Your task to perform on an android device: turn on location history Image 0: 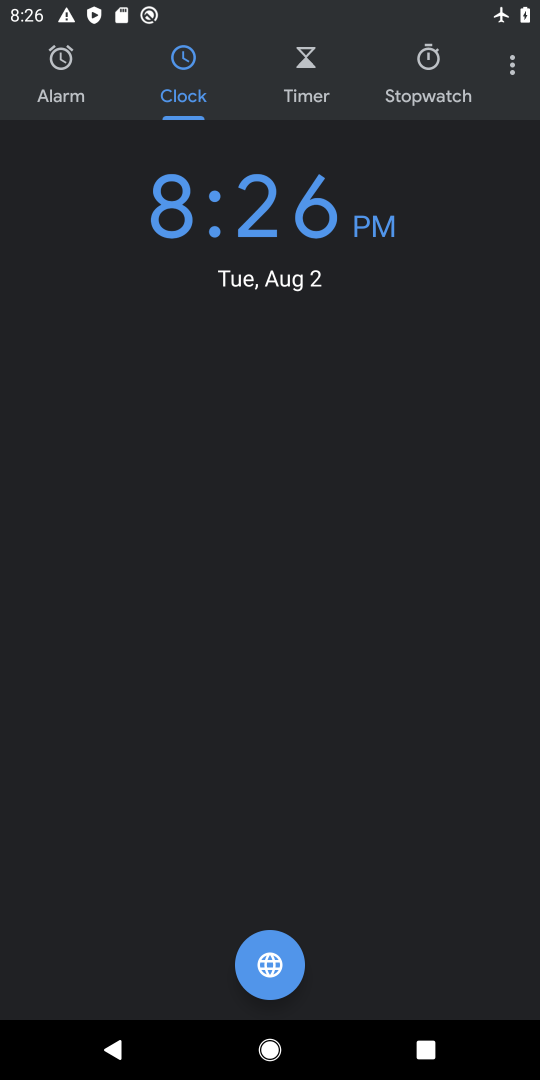
Step 0: press home button
Your task to perform on an android device: turn on location history Image 1: 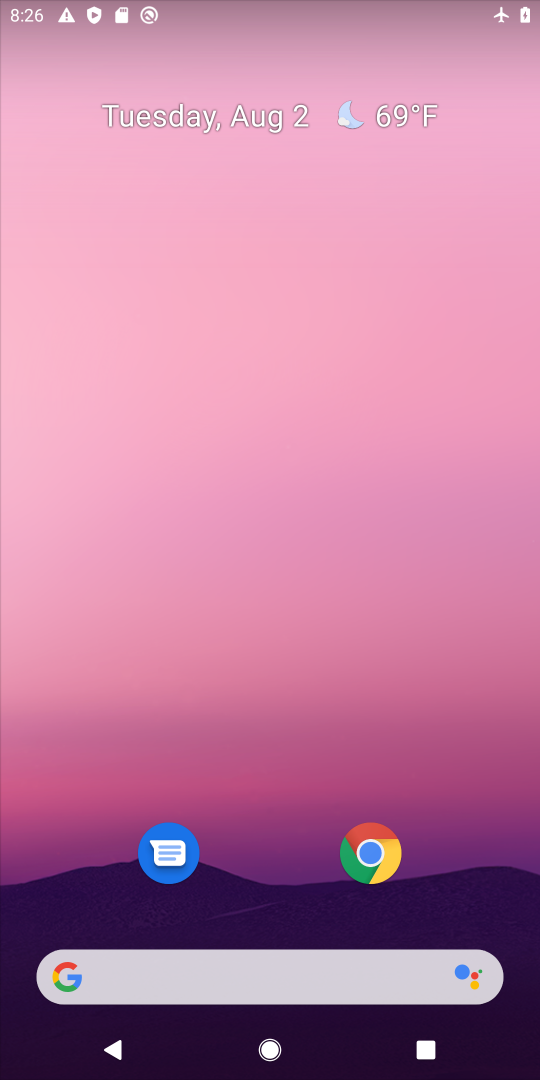
Step 1: drag from (233, 879) to (106, 171)
Your task to perform on an android device: turn on location history Image 2: 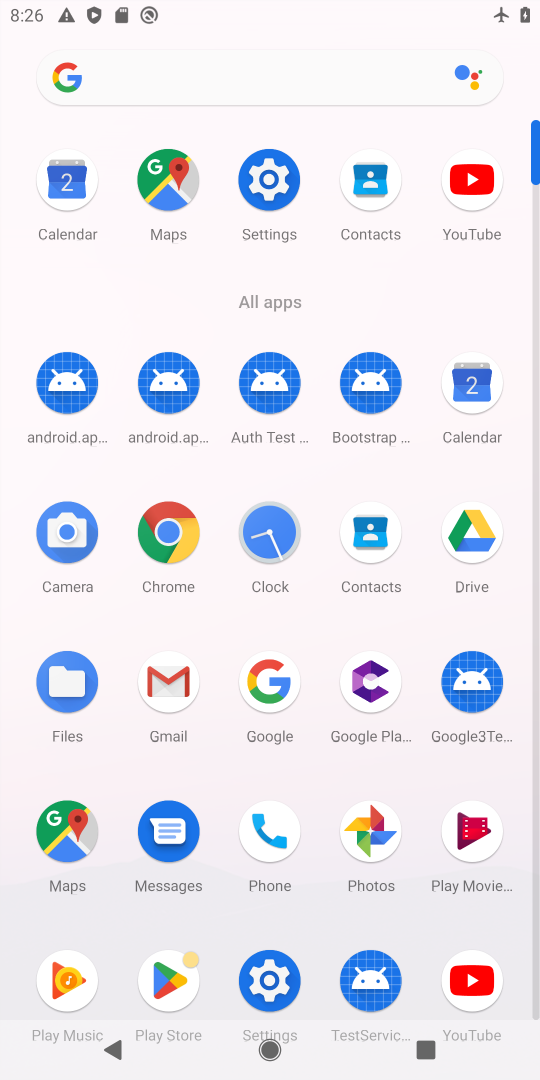
Step 2: click (273, 184)
Your task to perform on an android device: turn on location history Image 3: 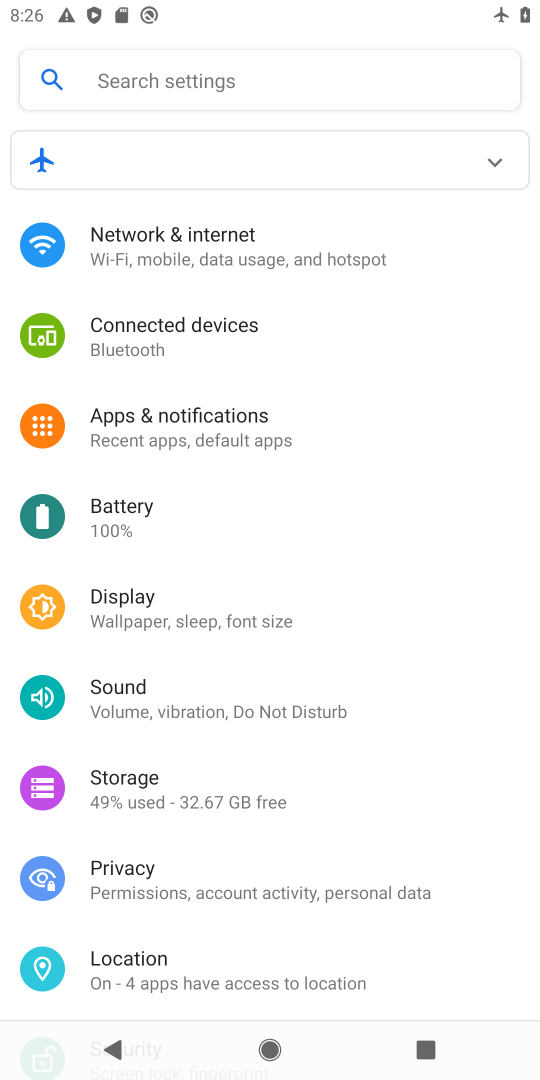
Step 3: click (189, 977)
Your task to perform on an android device: turn on location history Image 4: 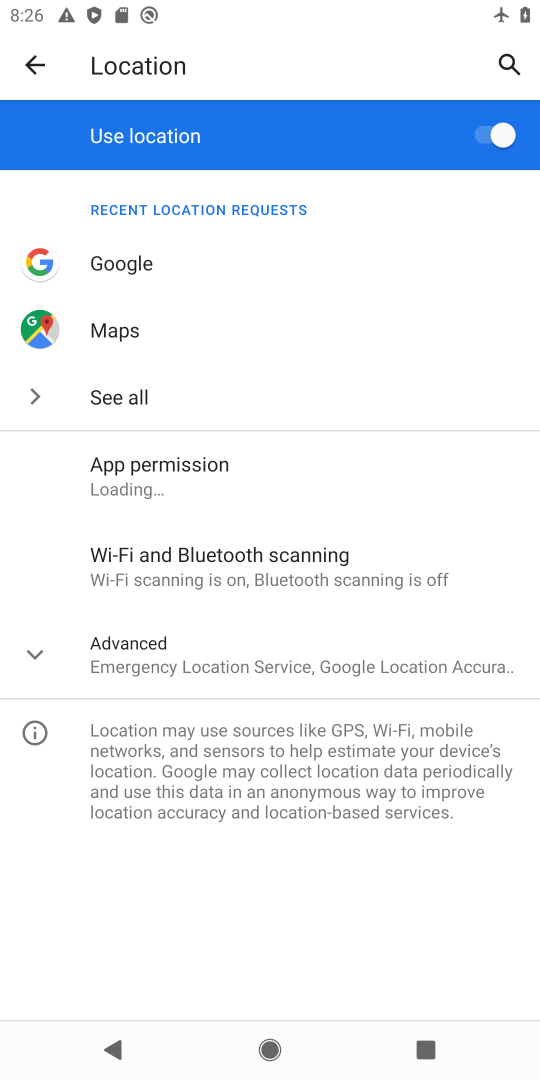
Step 4: click (232, 654)
Your task to perform on an android device: turn on location history Image 5: 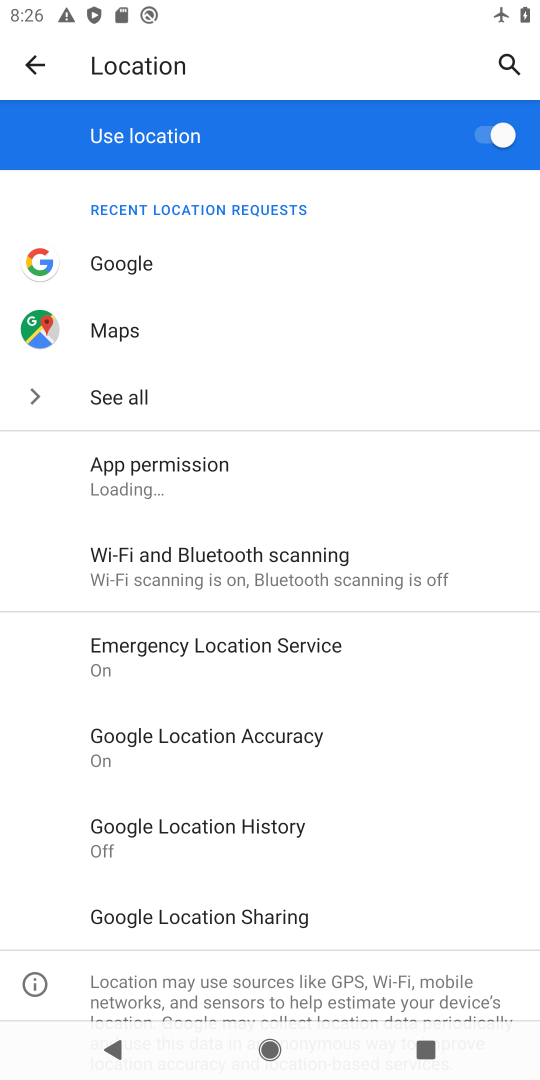
Step 5: click (213, 847)
Your task to perform on an android device: turn on location history Image 6: 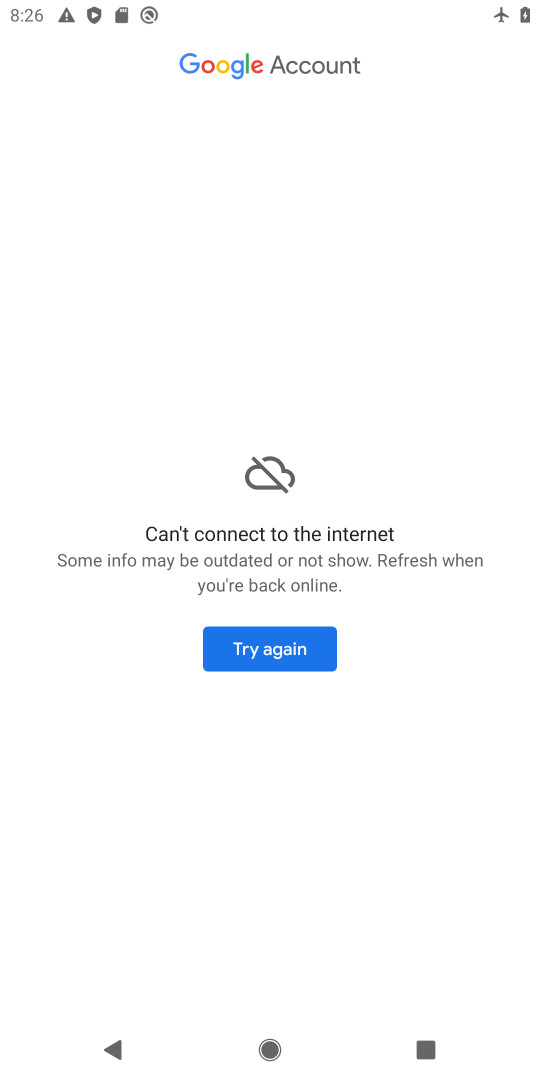
Step 6: task complete